Your task to perform on an android device: Open eBay Image 0: 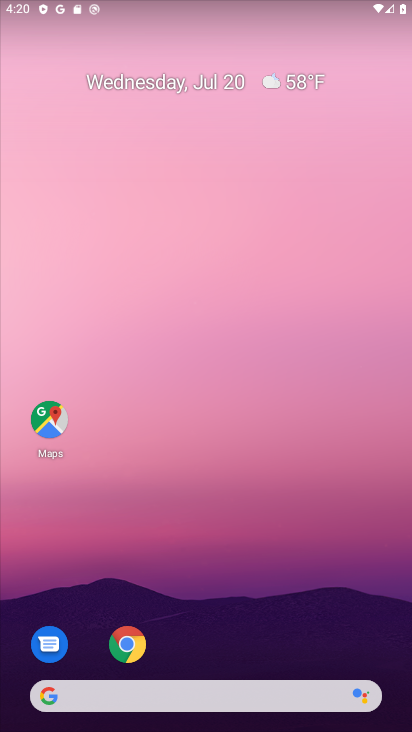
Step 0: press home button
Your task to perform on an android device: Open eBay Image 1: 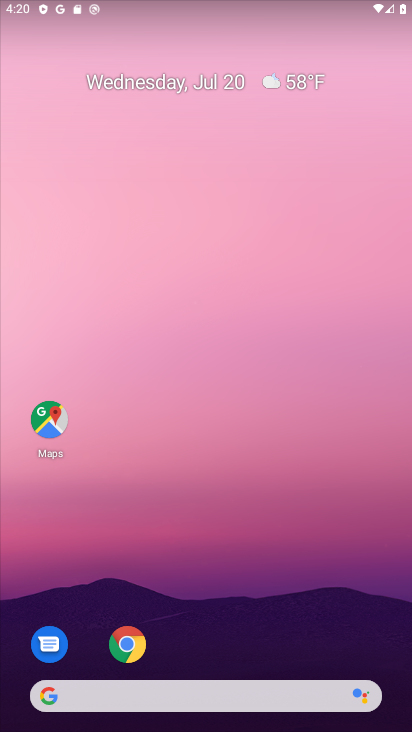
Step 1: click (50, 702)
Your task to perform on an android device: Open eBay Image 2: 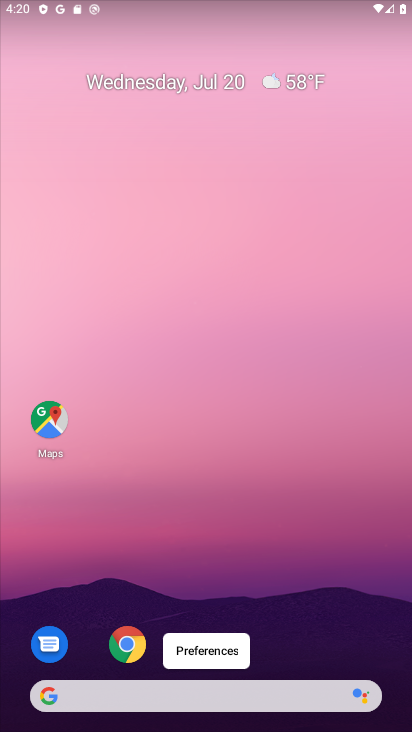
Step 2: click (50, 702)
Your task to perform on an android device: Open eBay Image 3: 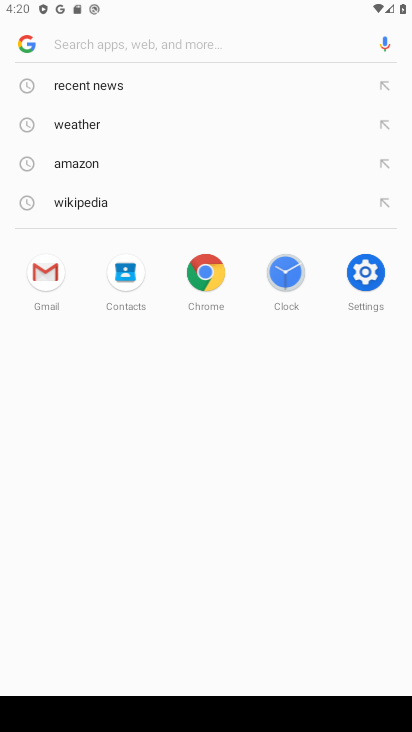
Step 3: type "eBay"
Your task to perform on an android device: Open eBay Image 4: 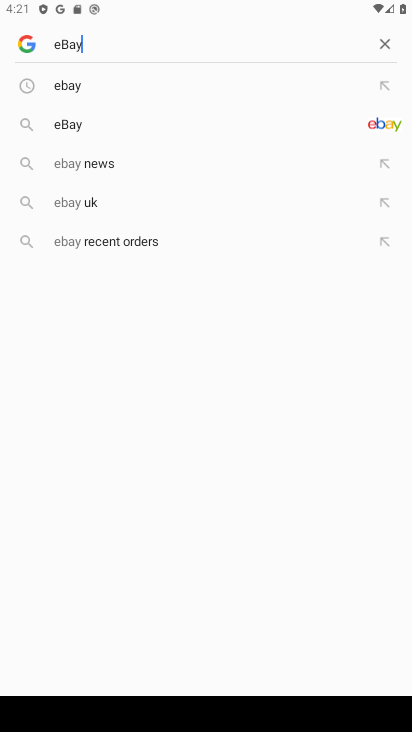
Step 4: press enter
Your task to perform on an android device: Open eBay Image 5: 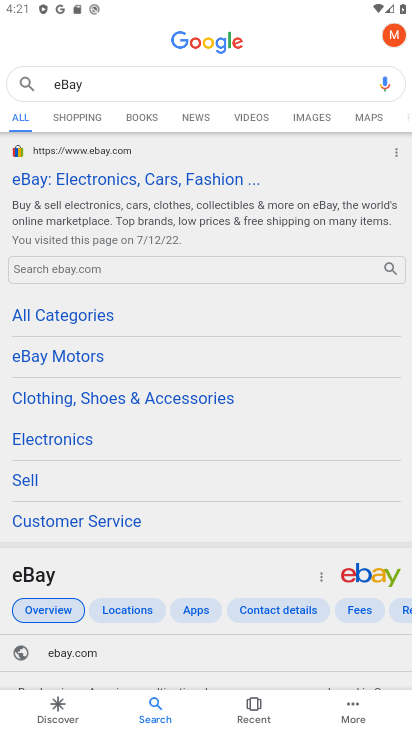
Step 5: click (126, 186)
Your task to perform on an android device: Open eBay Image 6: 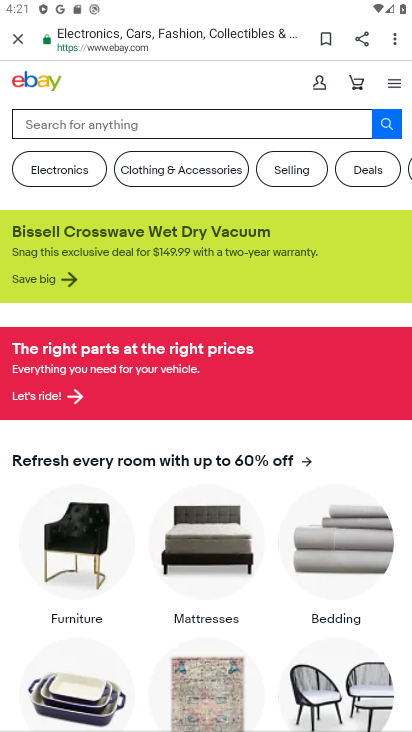
Step 6: task complete